Your task to perform on an android device: change the clock style Image 0: 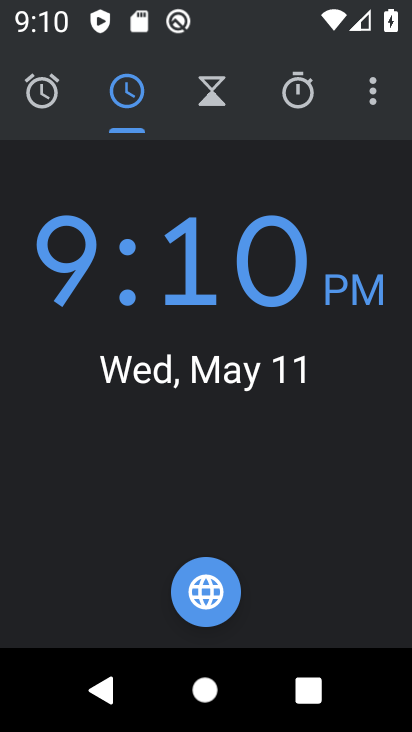
Step 0: click (372, 87)
Your task to perform on an android device: change the clock style Image 1: 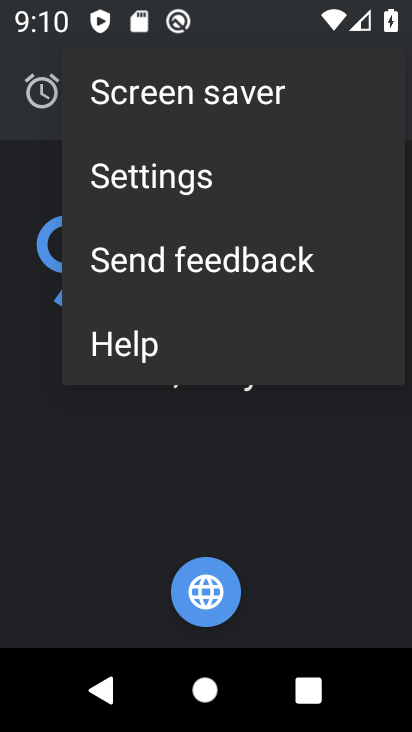
Step 1: click (195, 175)
Your task to perform on an android device: change the clock style Image 2: 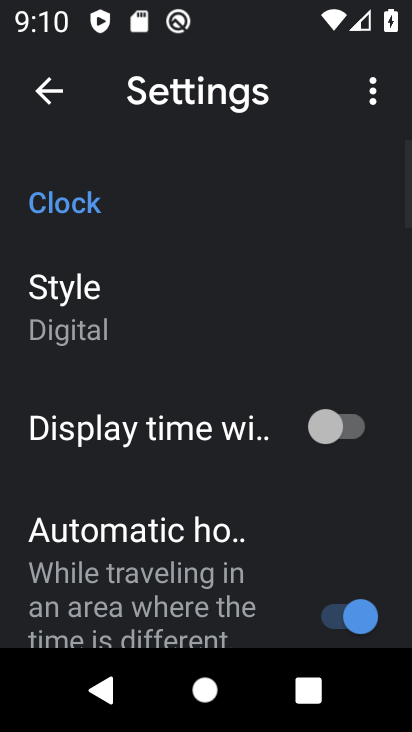
Step 2: click (114, 313)
Your task to perform on an android device: change the clock style Image 3: 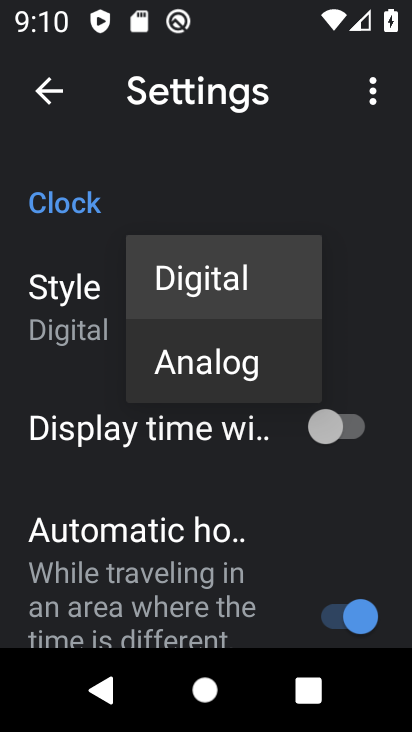
Step 3: click (196, 373)
Your task to perform on an android device: change the clock style Image 4: 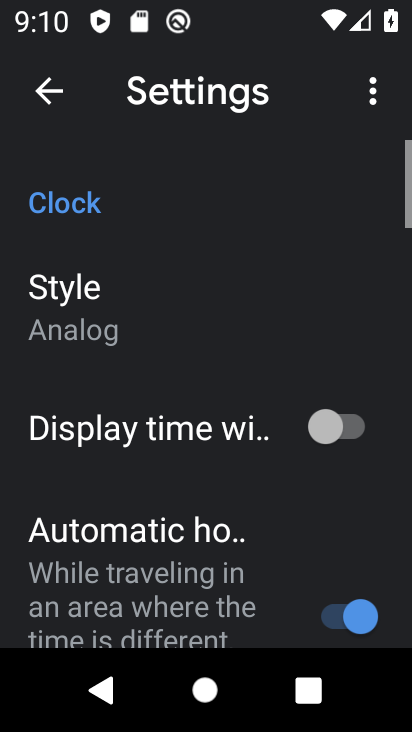
Step 4: task complete